Your task to perform on an android device: Show the shopping cart on costco. Add razer nari to the cart on costco Image 0: 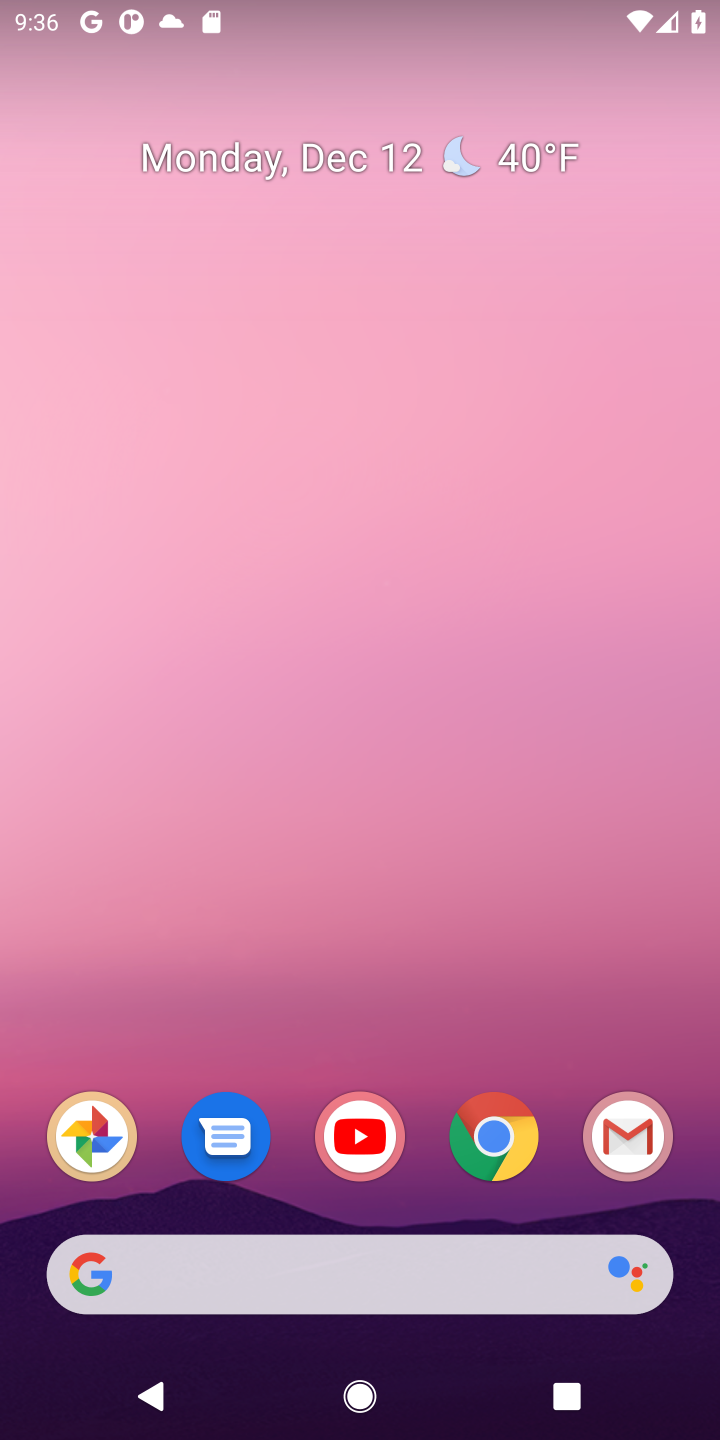
Step 0: click (497, 1149)
Your task to perform on an android device: Show the shopping cart on costco. Add razer nari to the cart on costco Image 1: 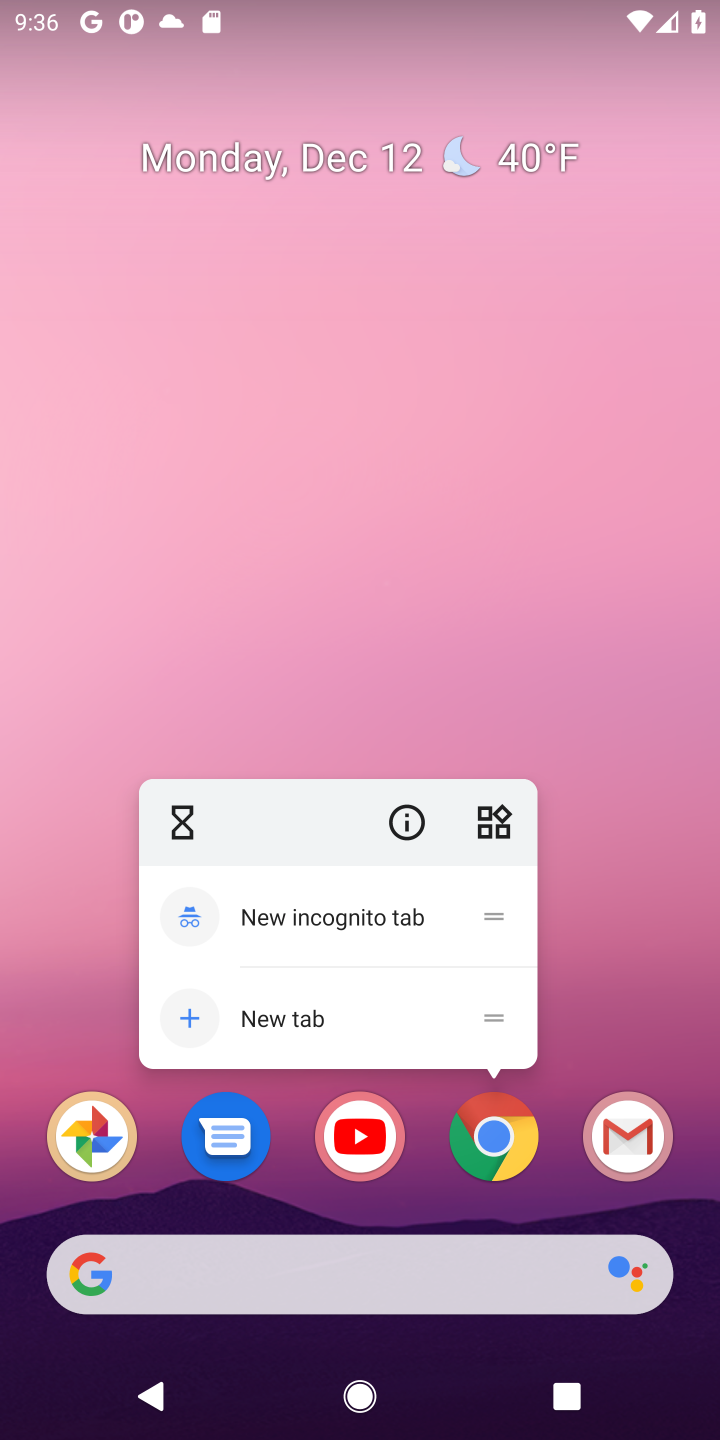
Step 1: click (497, 1149)
Your task to perform on an android device: Show the shopping cart on costco. Add razer nari to the cart on costco Image 2: 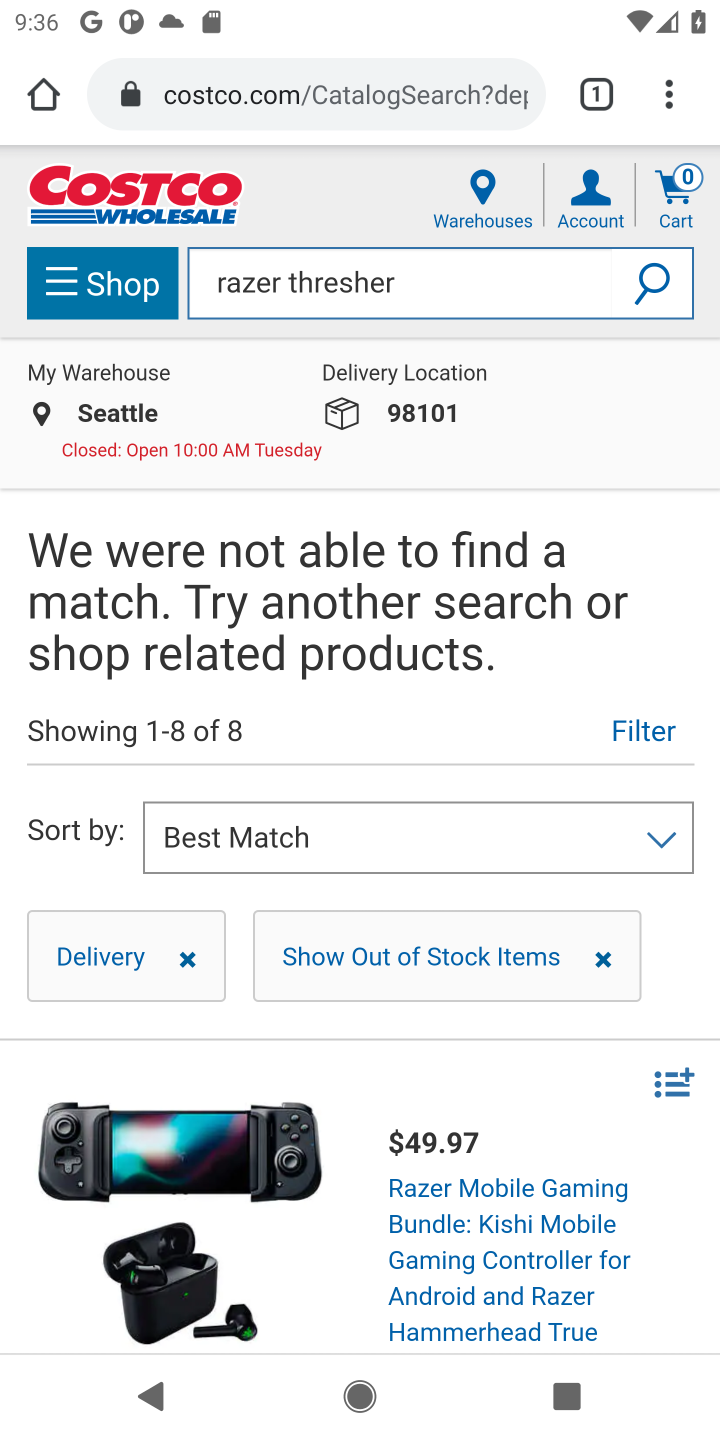
Step 2: click (674, 209)
Your task to perform on an android device: Show the shopping cart on costco. Add razer nari to the cart on costco Image 3: 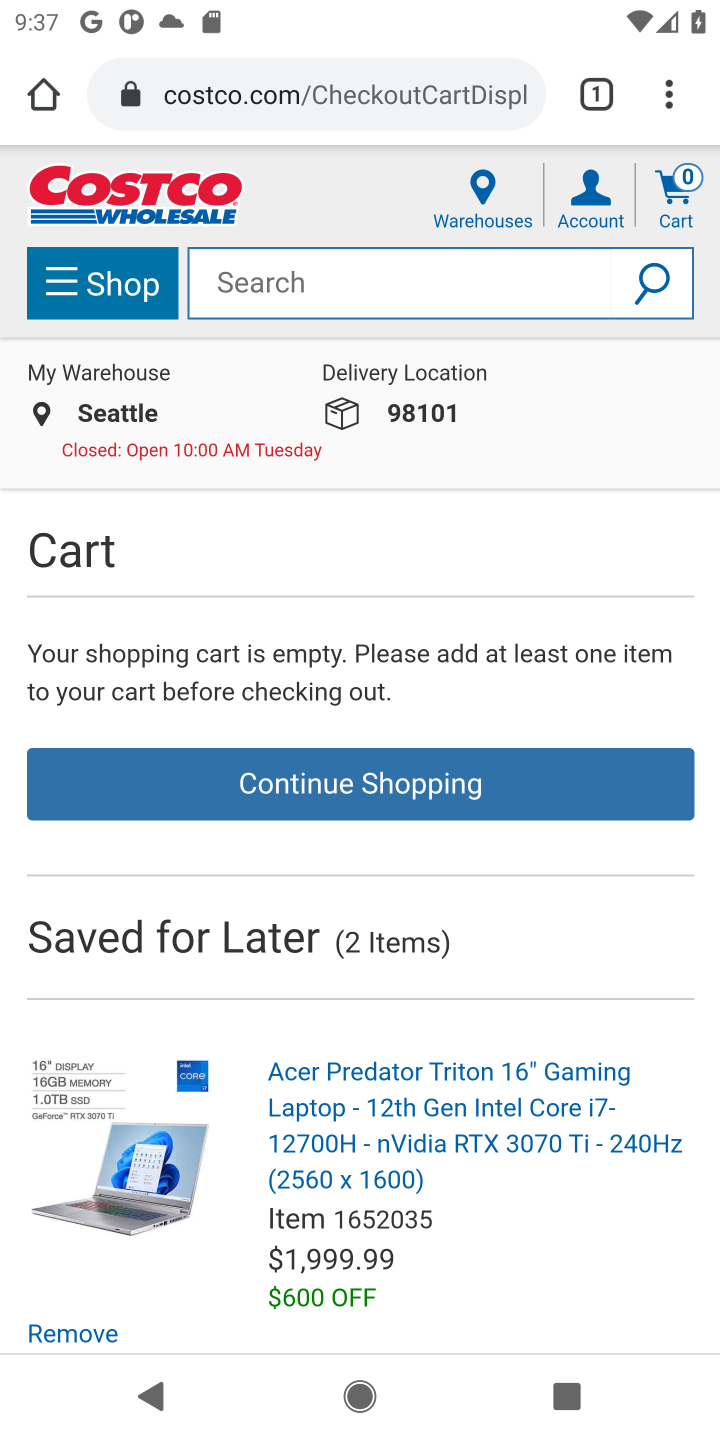
Step 3: click (295, 300)
Your task to perform on an android device: Show the shopping cart on costco. Add razer nari to the cart on costco Image 4: 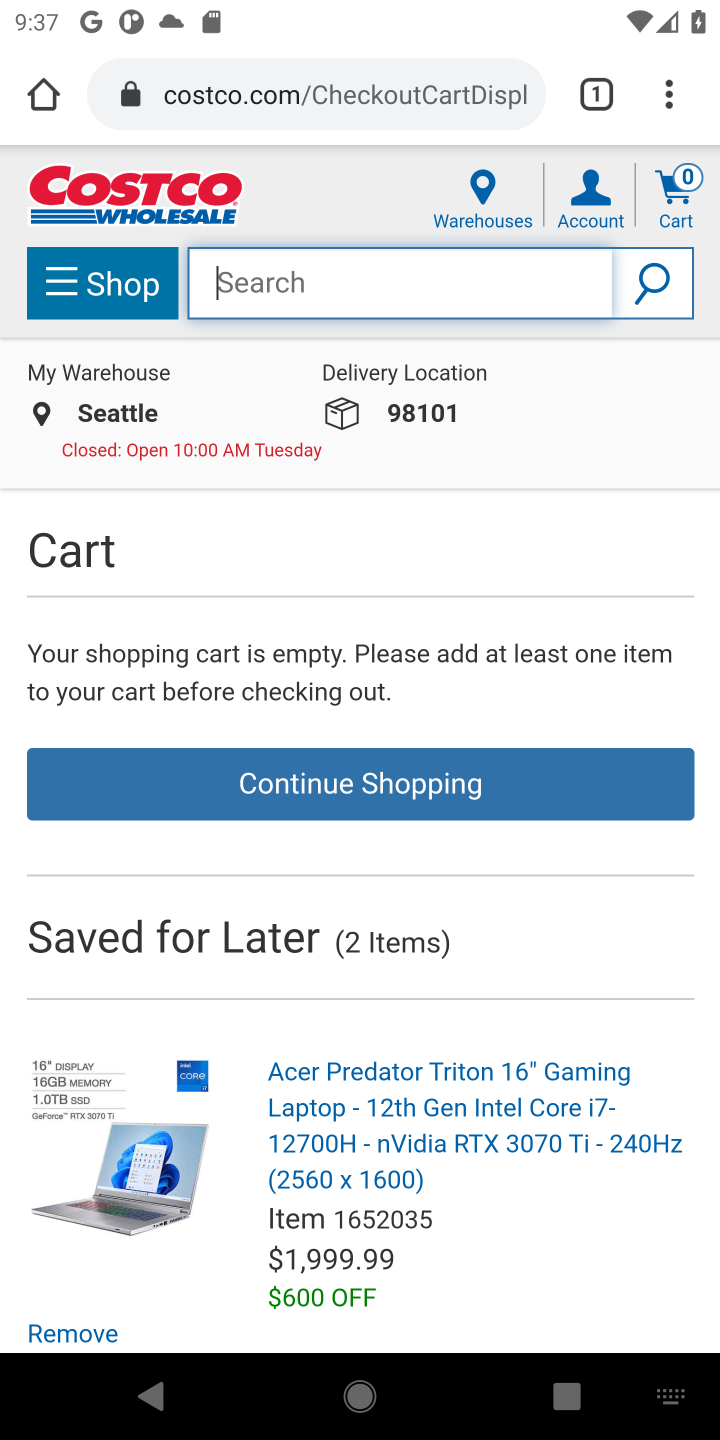
Step 4: type "razer nari"
Your task to perform on an android device: Show the shopping cart on costco. Add razer nari to the cart on costco Image 5: 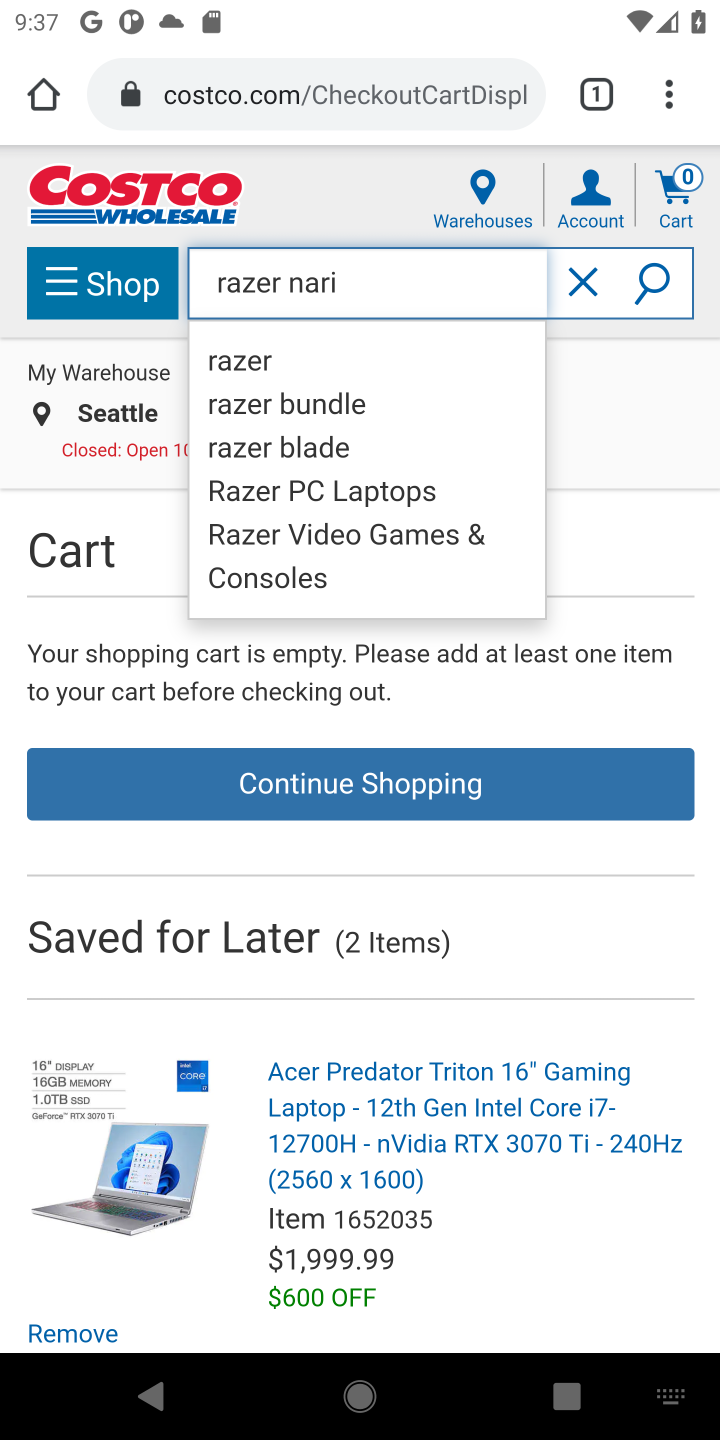
Step 5: click (661, 292)
Your task to perform on an android device: Show the shopping cart on costco. Add razer nari to the cart on costco Image 6: 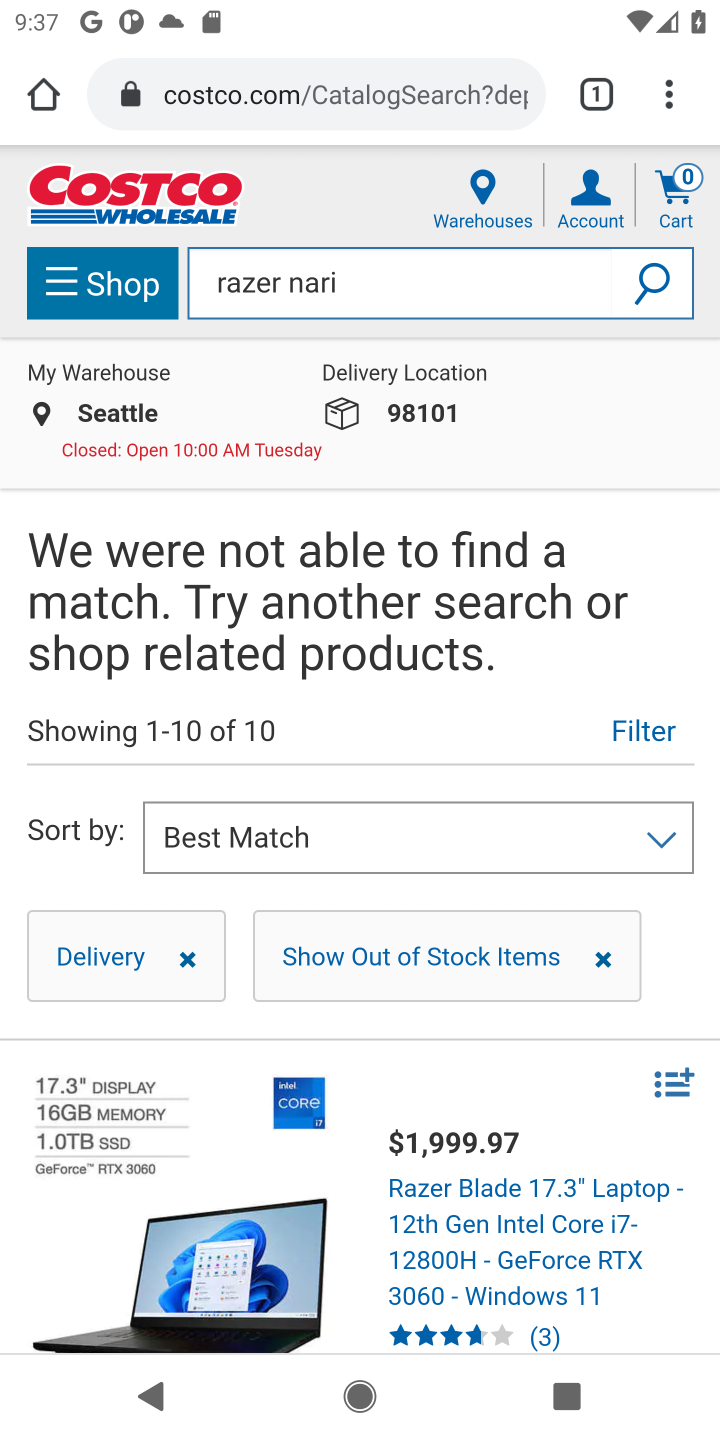
Step 6: task complete